Your task to perform on an android device: Search for Italian restaurants on Maps Image 0: 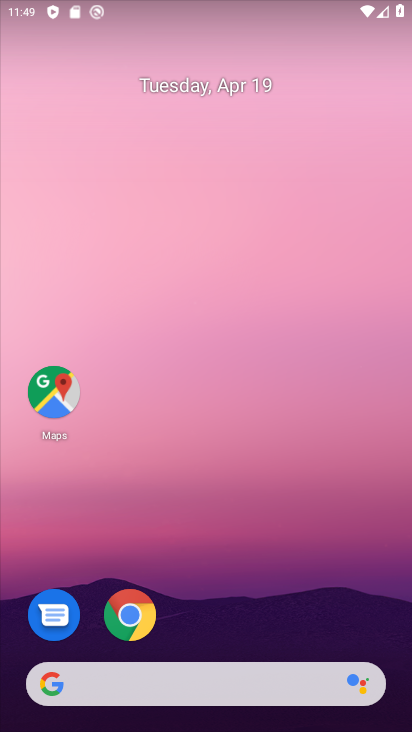
Step 0: click (46, 394)
Your task to perform on an android device: Search for Italian restaurants on Maps Image 1: 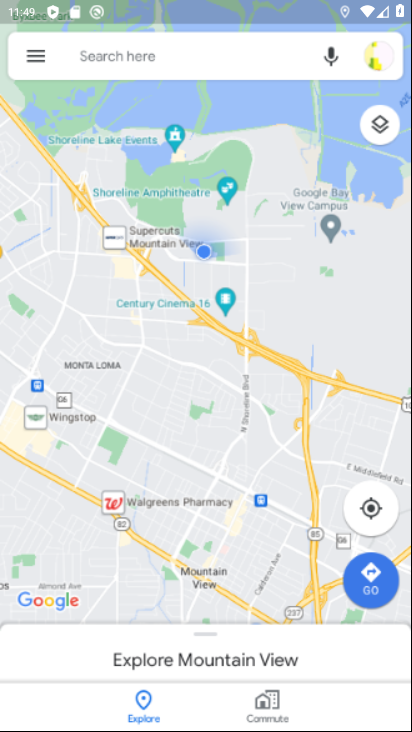
Step 1: click (169, 55)
Your task to perform on an android device: Search for Italian restaurants on Maps Image 2: 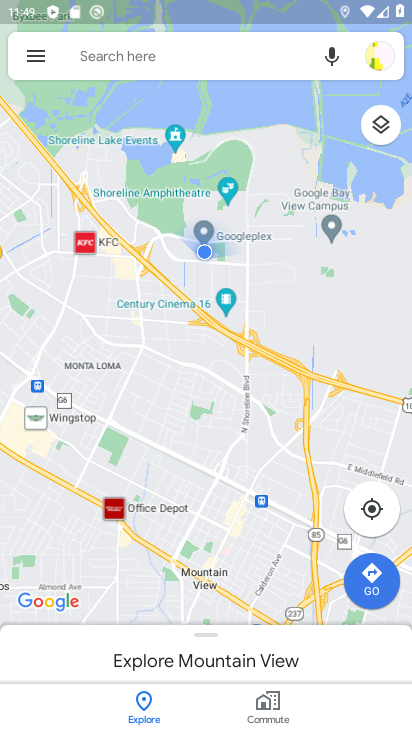
Step 2: click (169, 55)
Your task to perform on an android device: Search for Italian restaurants on Maps Image 3: 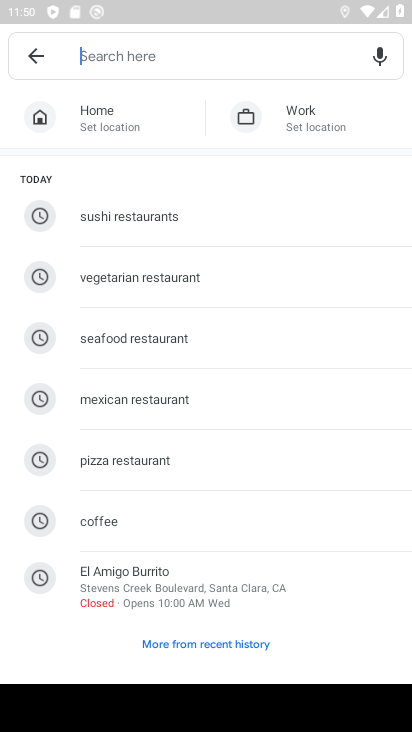
Step 3: type "italian restaurents"
Your task to perform on an android device: Search for Italian restaurants on Maps Image 4: 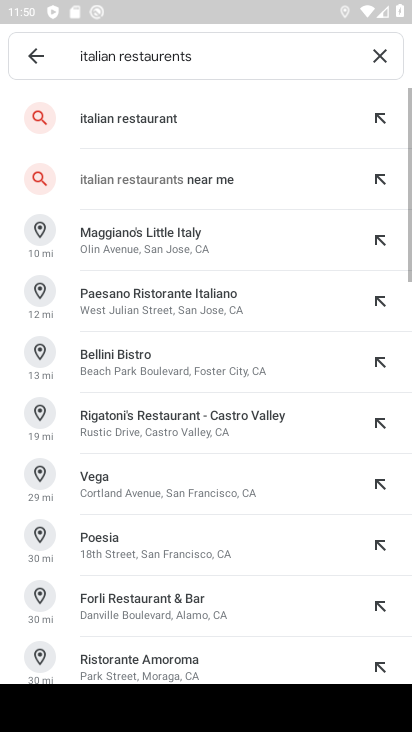
Step 4: click (148, 131)
Your task to perform on an android device: Search for Italian restaurants on Maps Image 5: 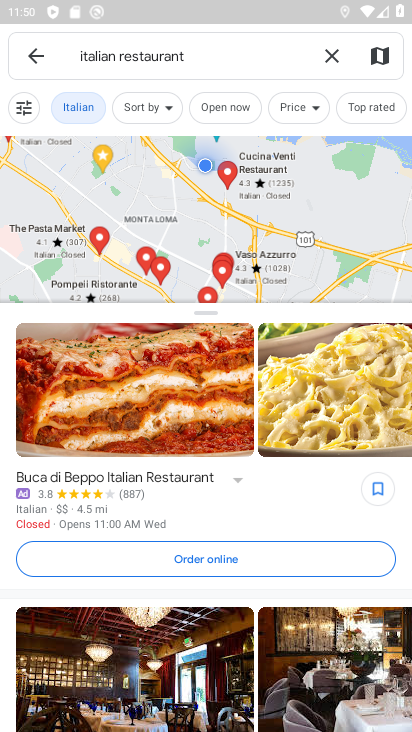
Step 5: task complete